Your task to perform on an android device: open app "Adobe Express: Graphic Design" Image 0: 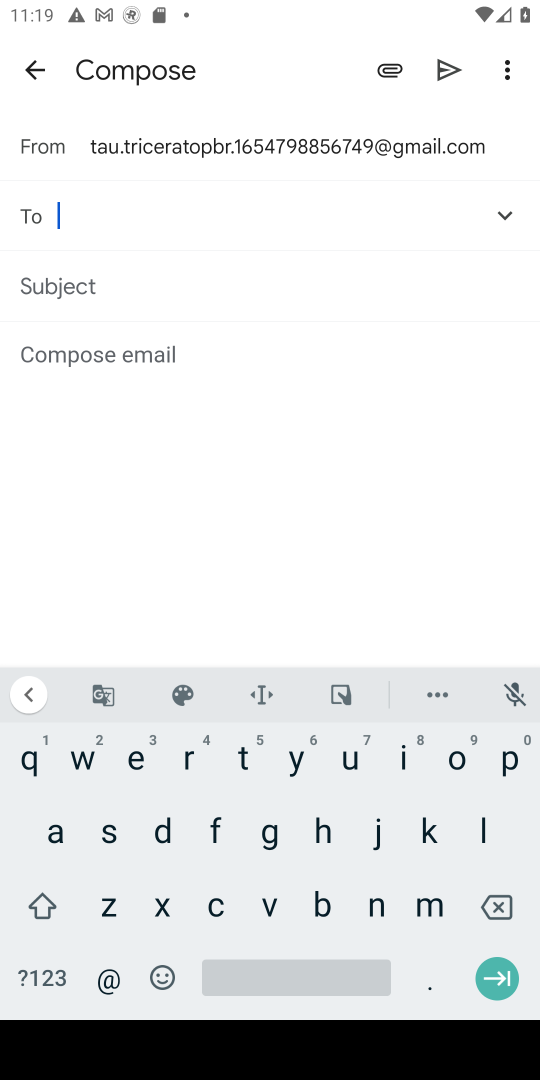
Step 0: press home button
Your task to perform on an android device: open app "Adobe Express: Graphic Design" Image 1: 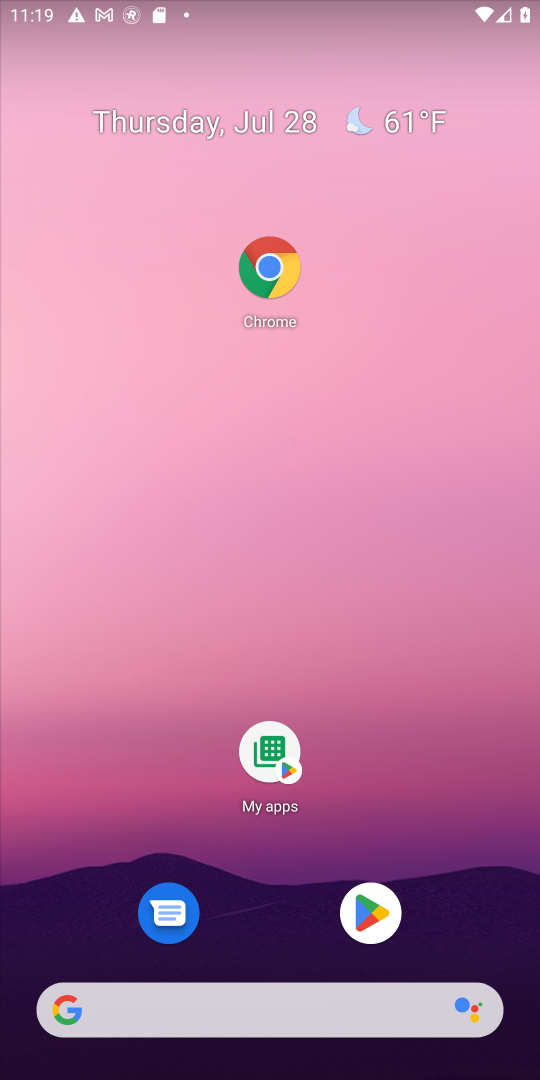
Step 1: click (367, 912)
Your task to perform on an android device: open app "Adobe Express: Graphic Design" Image 2: 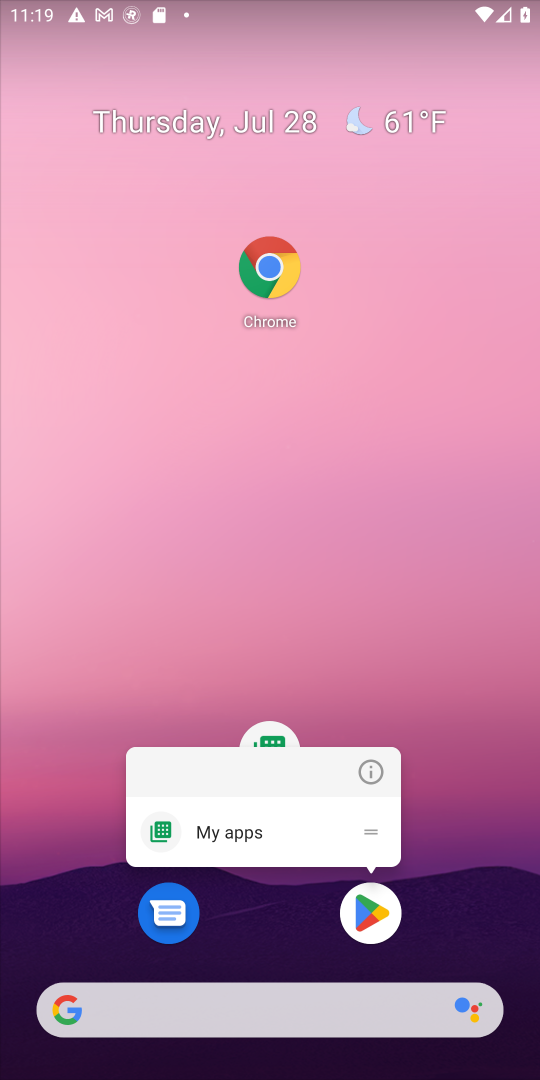
Step 2: click (370, 919)
Your task to perform on an android device: open app "Adobe Express: Graphic Design" Image 3: 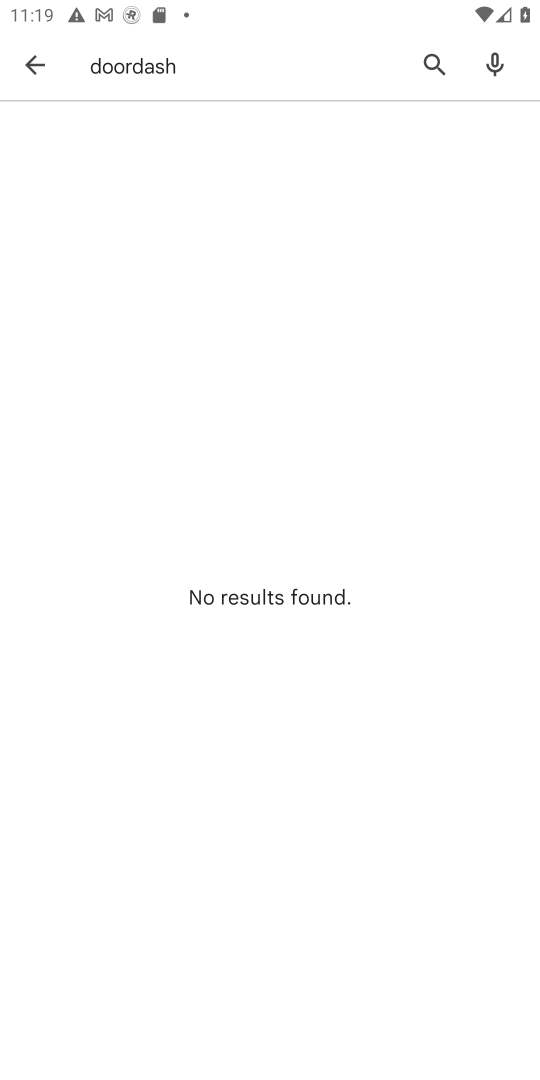
Step 3: click (429, 62)
Your task to perform on an android device: open app "Adobe Express: Graphic Design" Image 4: 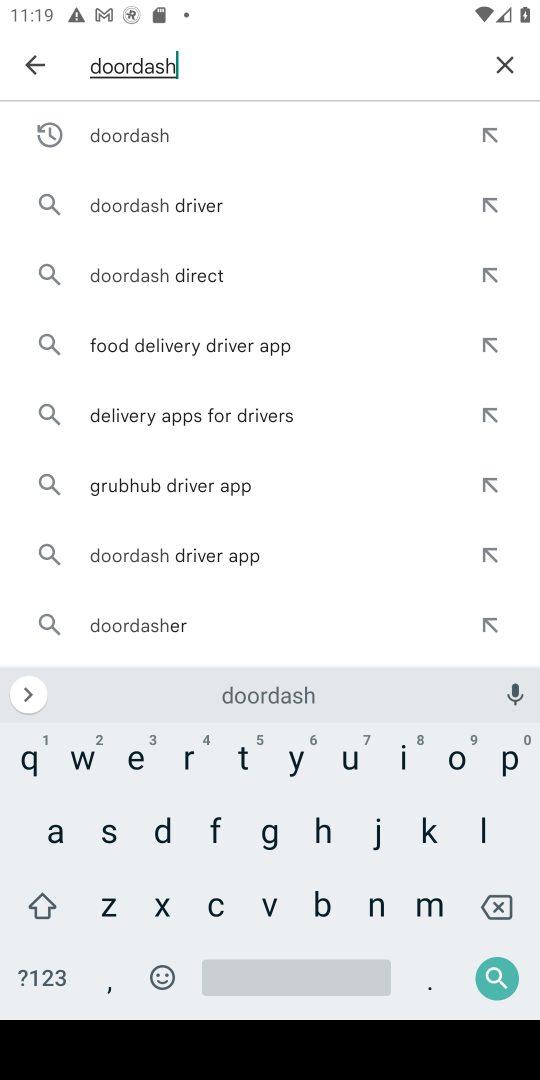
Step 4: click (504, 66)
Your task to perform on an android device: open app "Adobe Express: Graphic Design" Image 5: 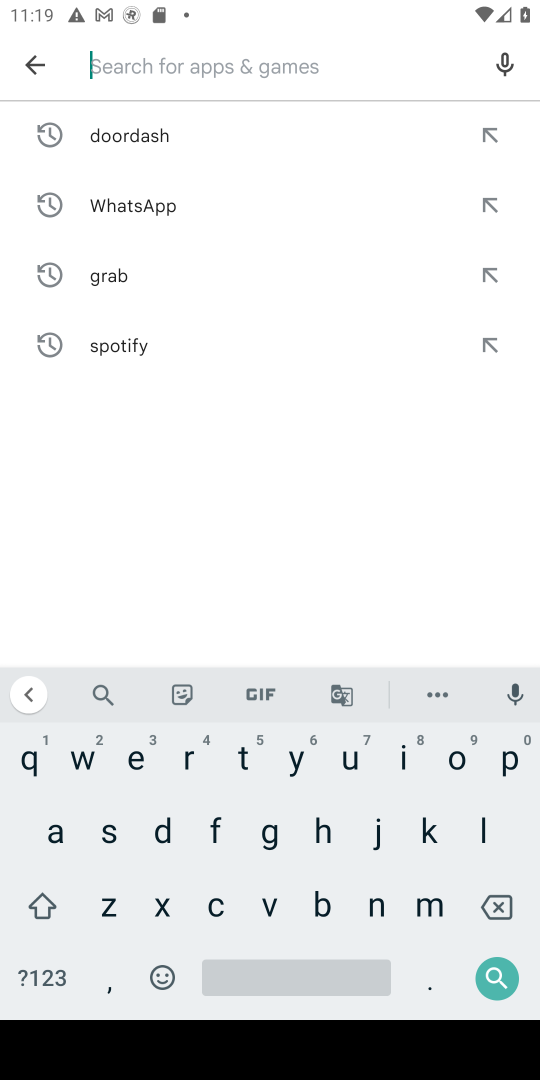
Step 5: click (55, 839)
Your task to perform on an android device: open app "Adobe Express: Graphic Design" Image 6: 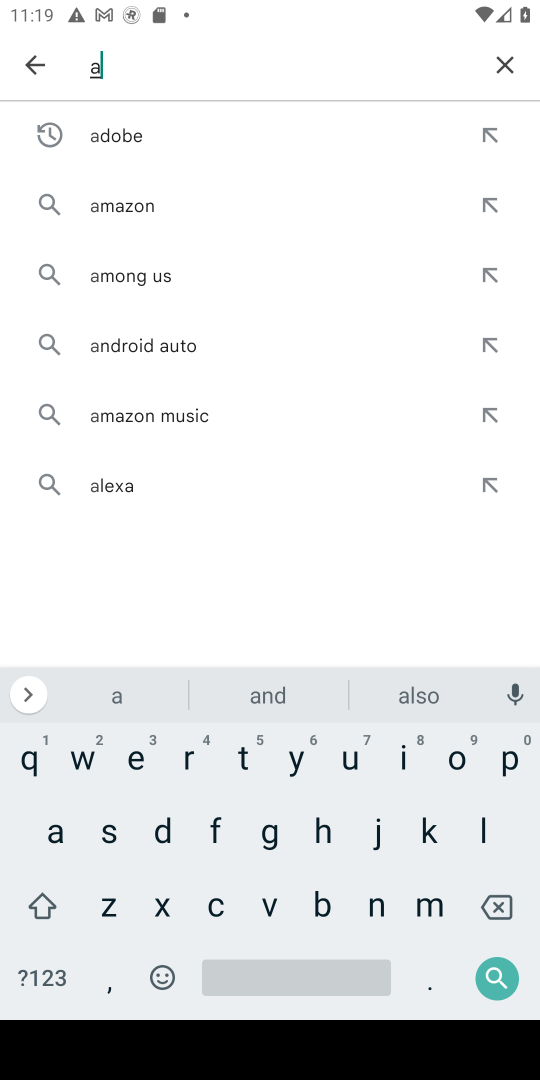
Step 6: click (145, 137)
Your task to perform on an android device: open app "Adobe Express: Graphic Design" Image 7: 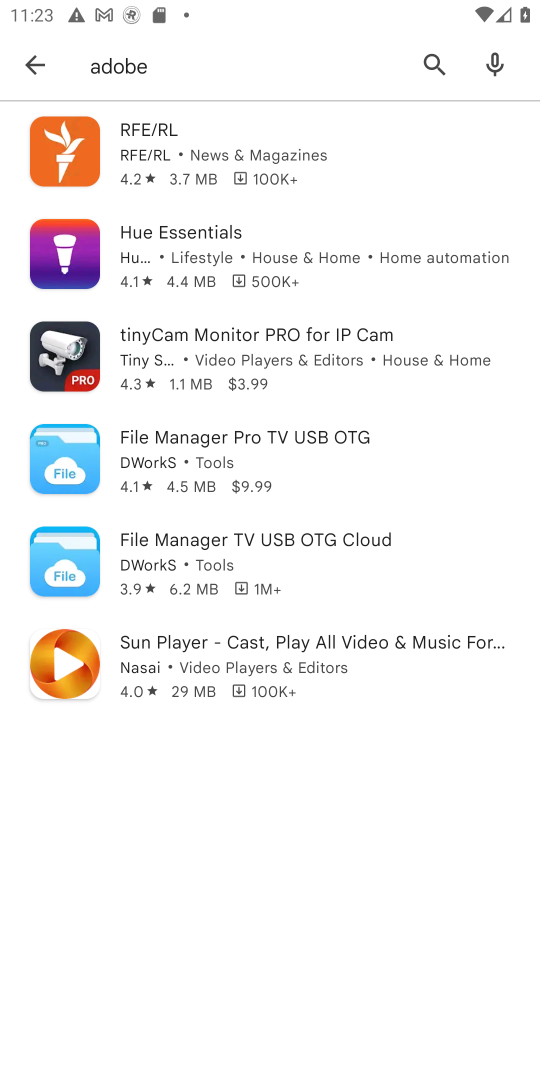
Step 7: task complete